Your task to perform on an android device: Open Maps and search for coffee Image 0: 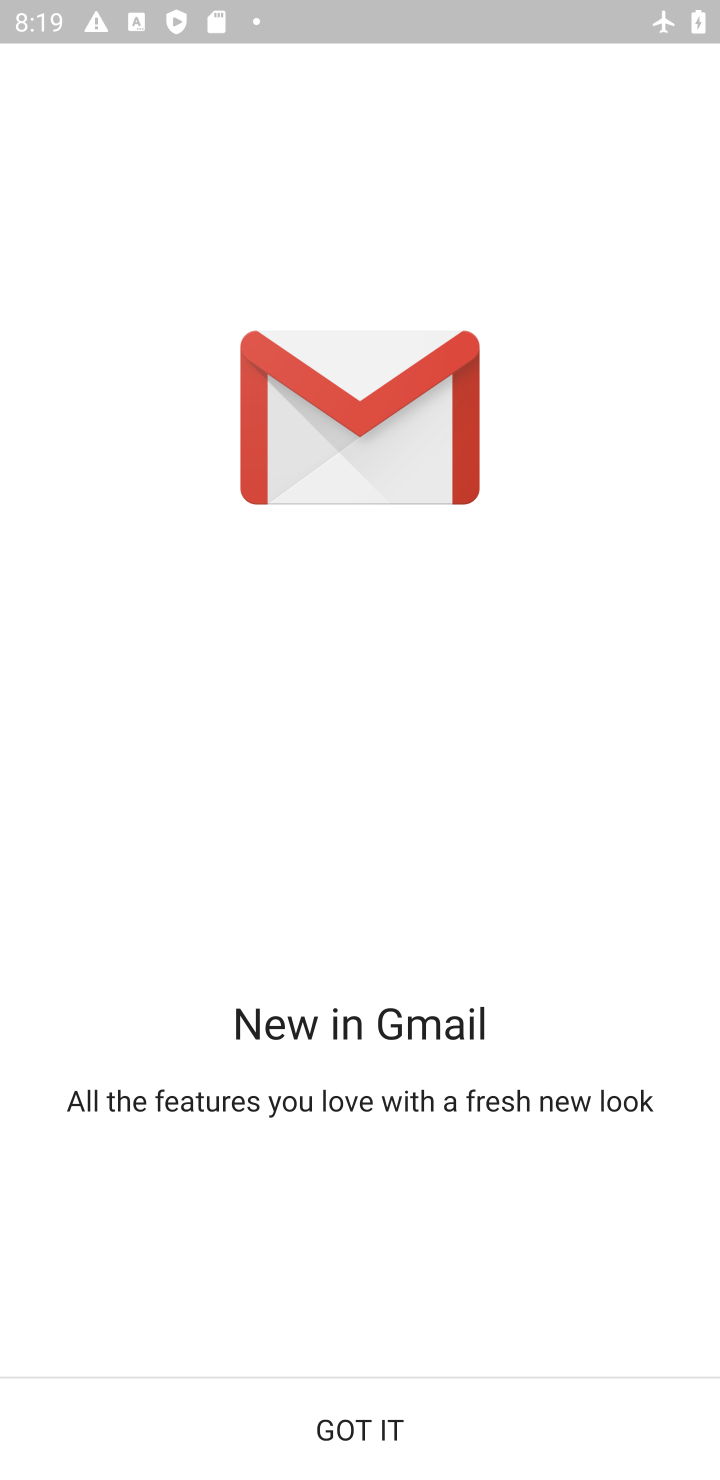
Step 0: press home button
Your task to perform on an android device: Open Maps and search for coffee Image 1: 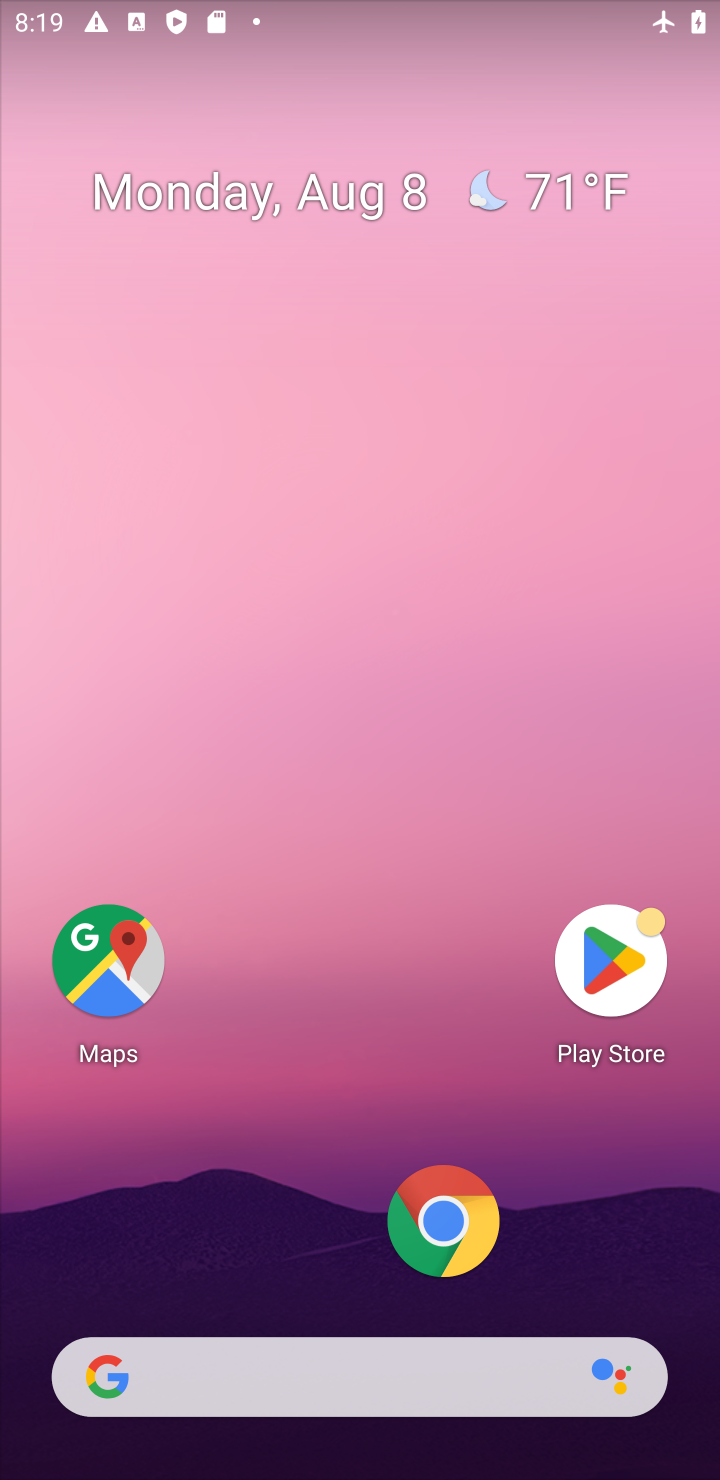
Step 1: click (105, 939)
Your task to perform on an android device: Open Maps and search for coffee Image 2: 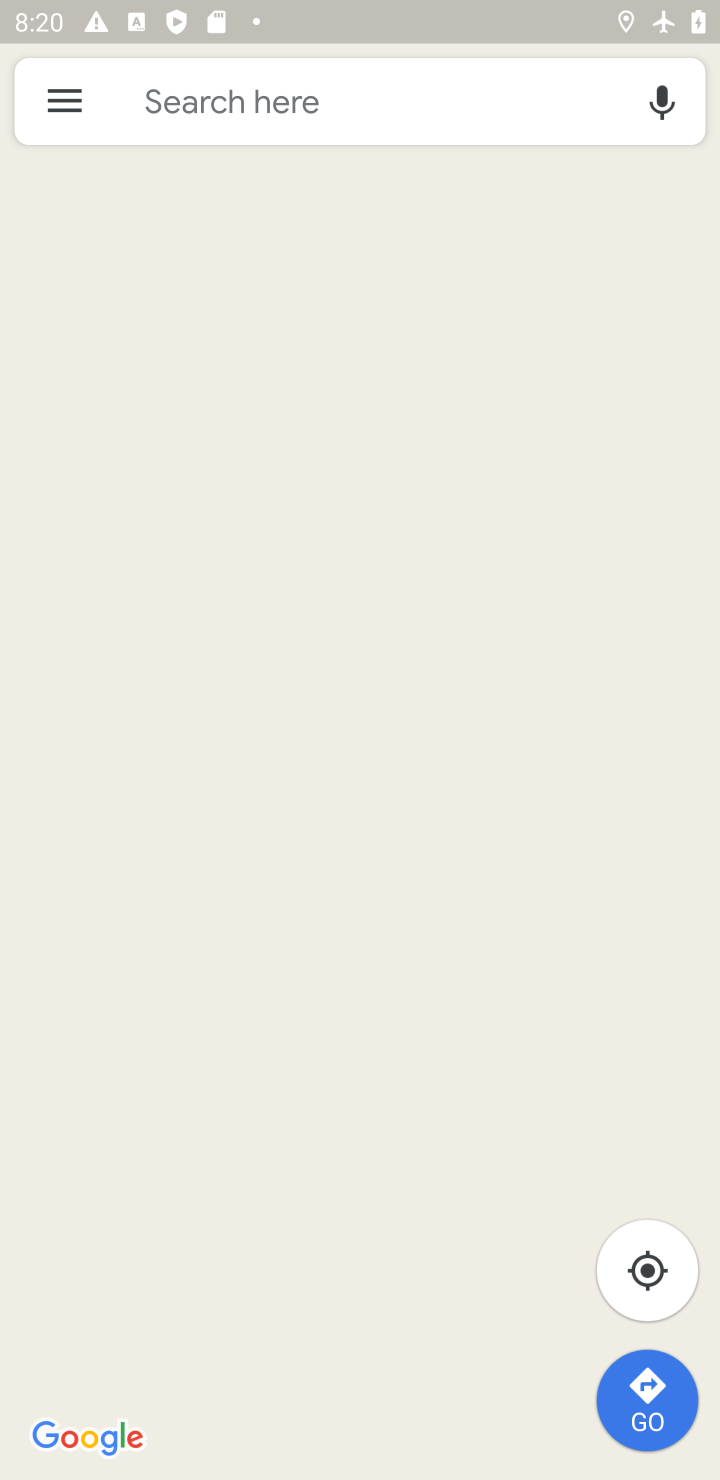
Step 2: click (362, 76)
Your task to perform on an android device: Open Maps and search for coffee Image 3: 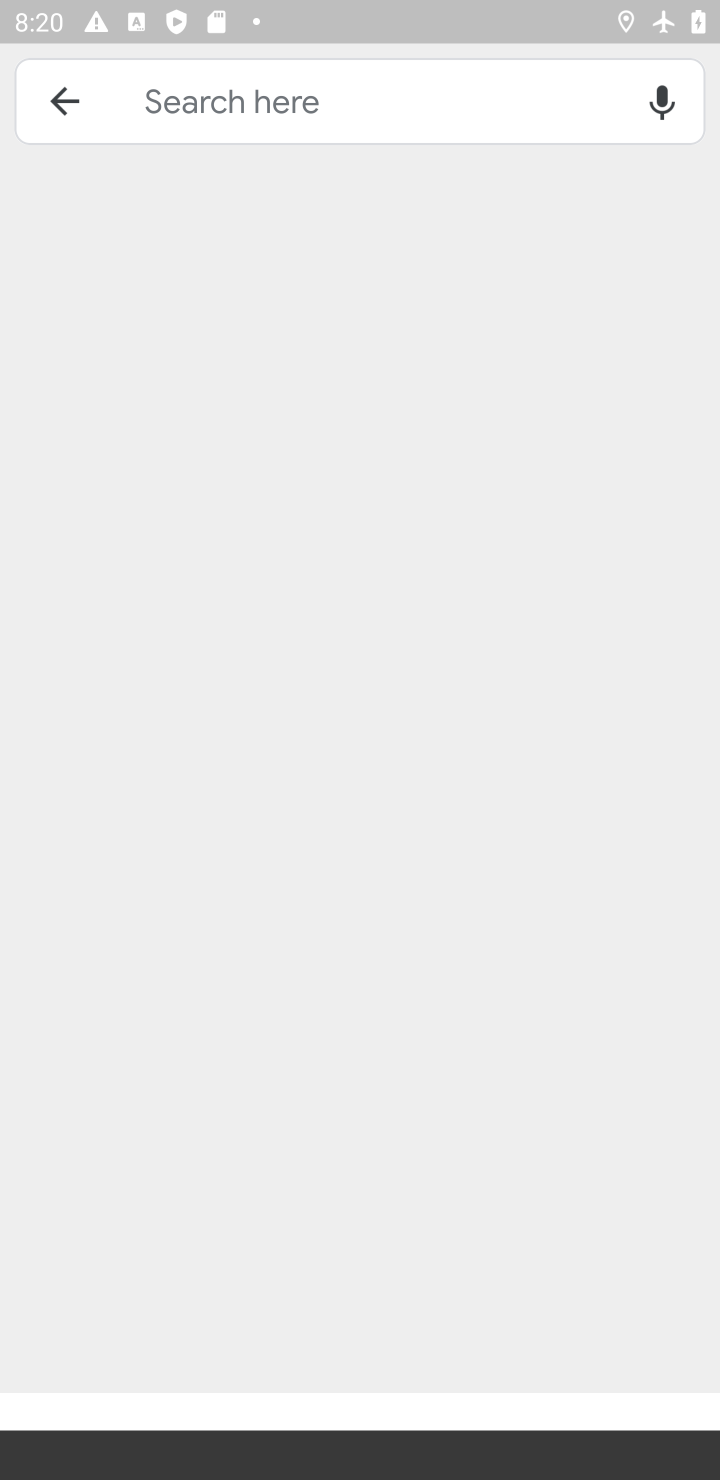
Step 3: drag from (553, 26) to (481, 1459)
Your task to perform on an android device: Open Maps and search for coffee Image 4: 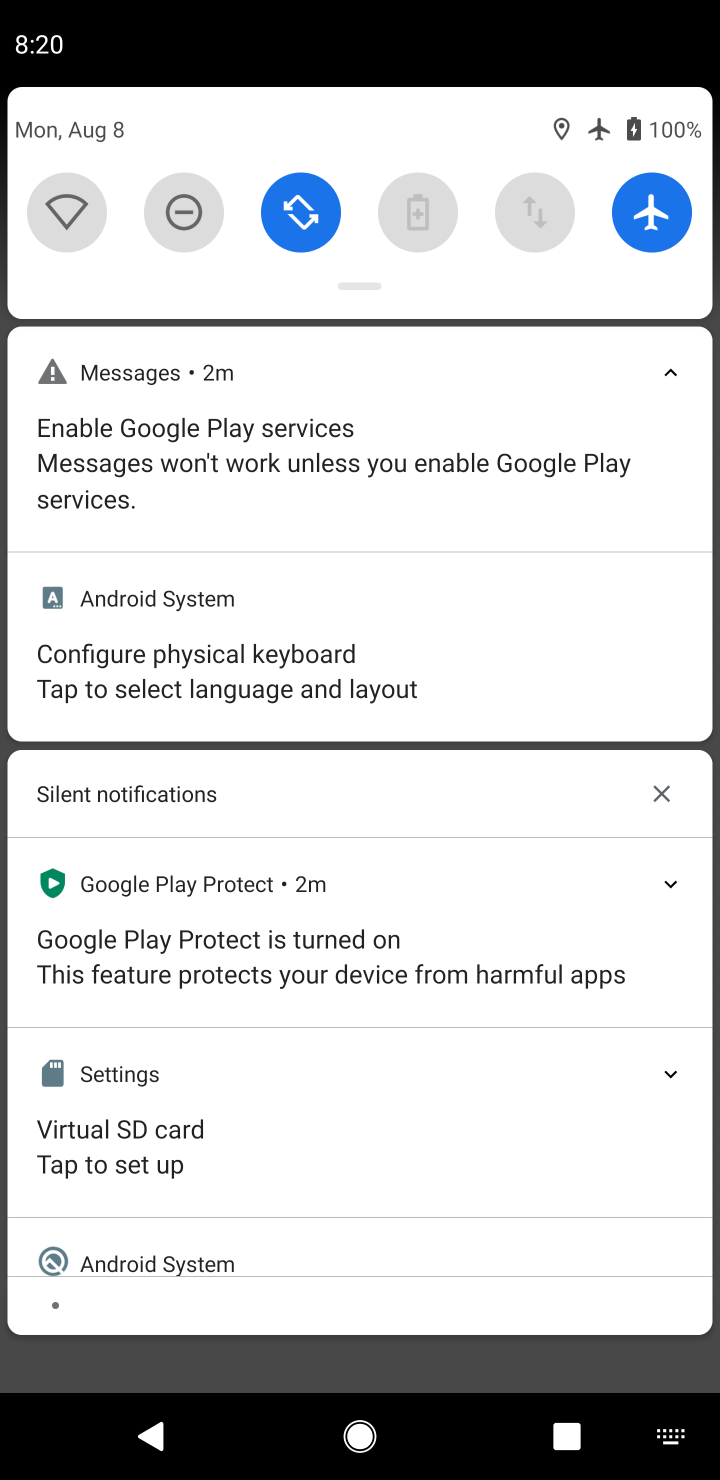
Step 4: click (657, 240)
Your task to perform on an android device: Open Maps and search for coffee Image 5: 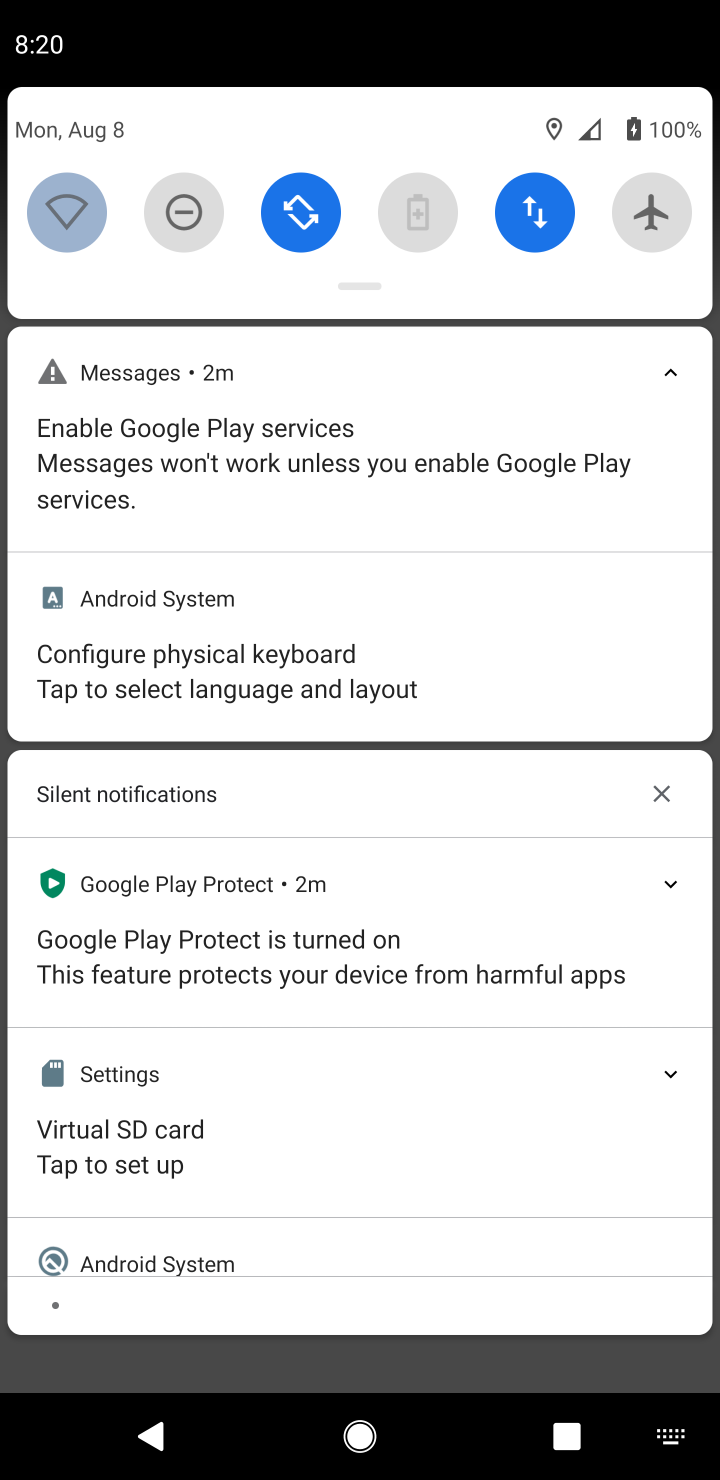
Step 5: task complete